Your task to perform on an android device: Do I have any events this weekend? Image 0: 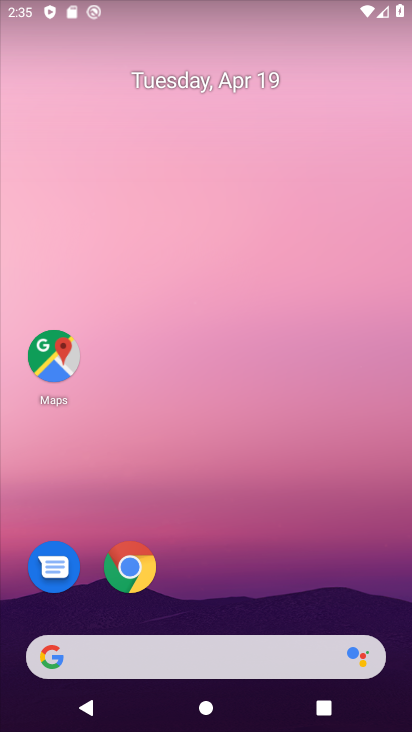
Step 0: drag from (333, 543) to (296, 100)
Your task to perform on an android device: Do I have any events this weekend? Image 1: 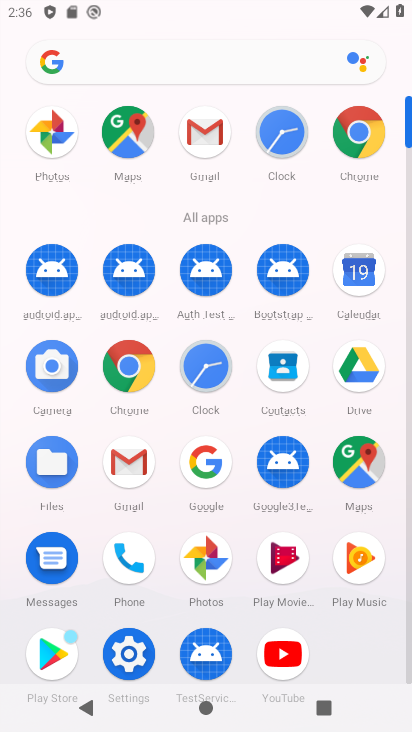
Step 1: click (371, 282)
Your task to perform on an android device: Do I have any events this weekend? Image 2: 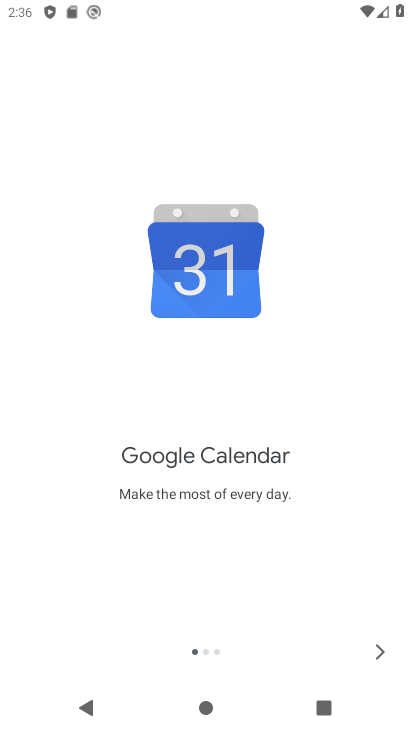
Step 2: click (375, 636)
Your task to perform on an android device: Do I have any events this weekend? Image 3: 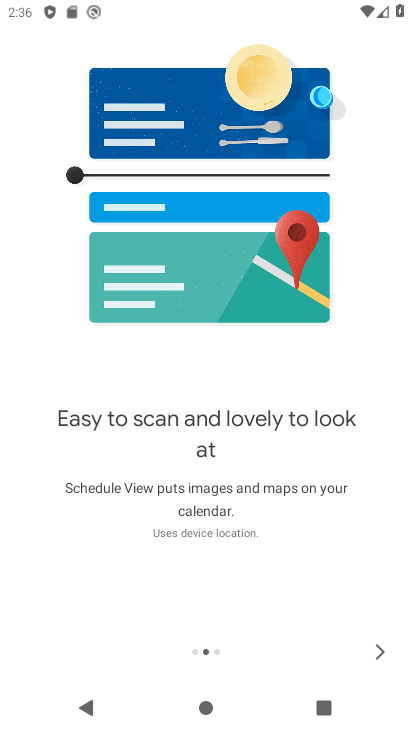
Step 3: click (377, 649)
Your task to perform on an android device: Do I have any events this weekend? Image 4: 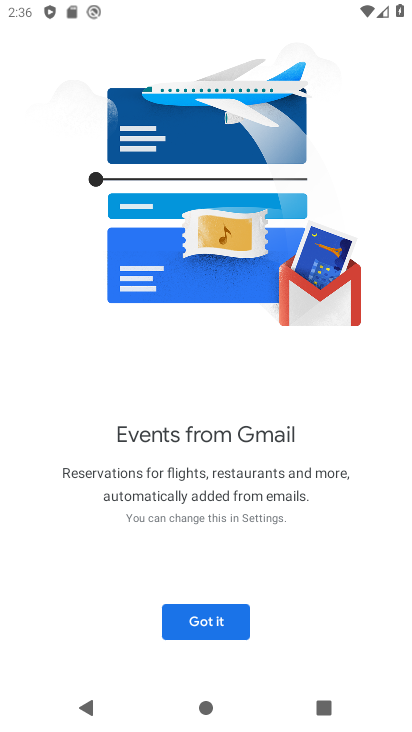
Step 4: click (211, 610)
Your task to perform on an android device: Do I have any events this weekend? Image 5: 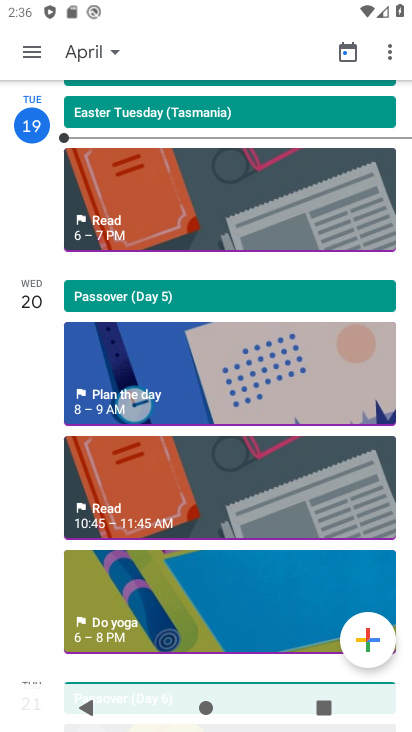
Step 5: click (99, 61)
Your task to perform on an android device: Do I have any events this weekend? Image 6: 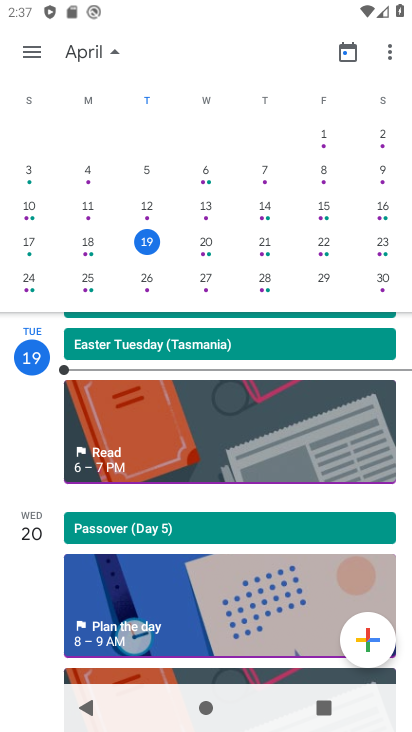
Step 6: click (87, 246)
Your task to perform on an android device: Do I have any events this weekend? Image 7: 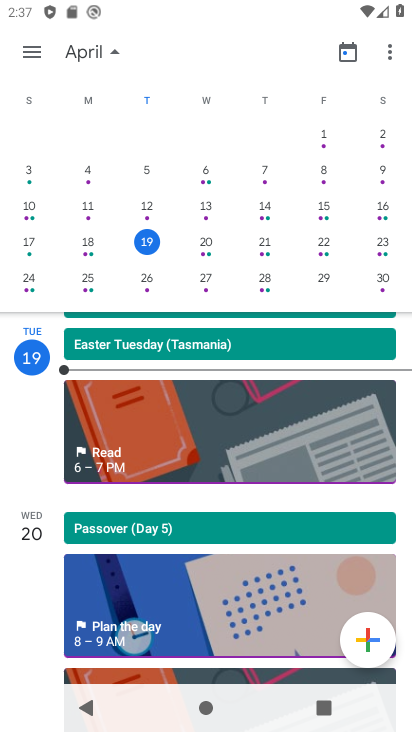
Step 7: click (89, 241)
Your task to perform on an android device: Do I have any events this weekend? Image 8: 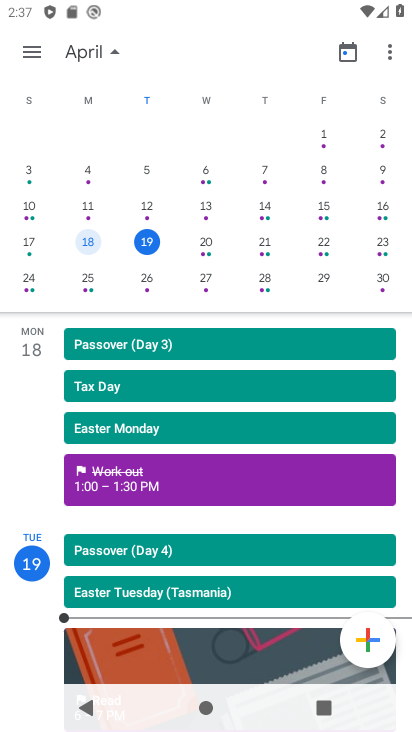
Step 8: task complete